Your task to perform on an android device: What's on my calendar tomorrow? Image 0: 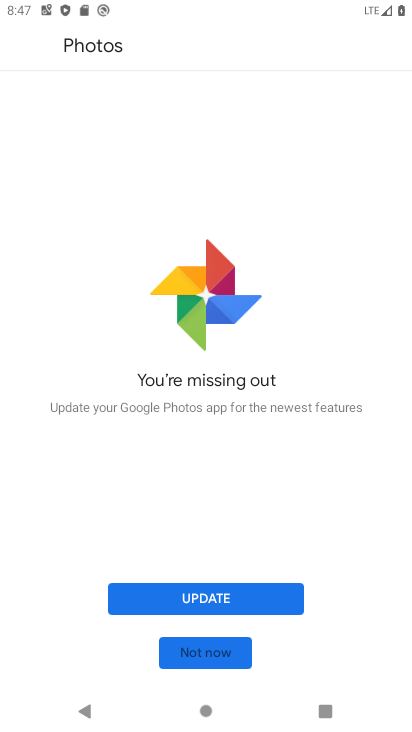
Step 0: press home button
Your task to perform on an android device: What's on my calendar tomorrow? Image 1: 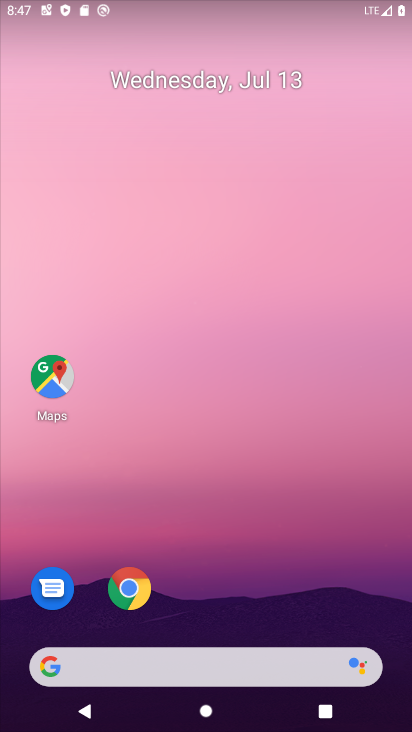
Step 1: drag from (221, 648) to (231, 306)
Your task to perform on an android device: What's on my calendar tomorrow? Image 2: 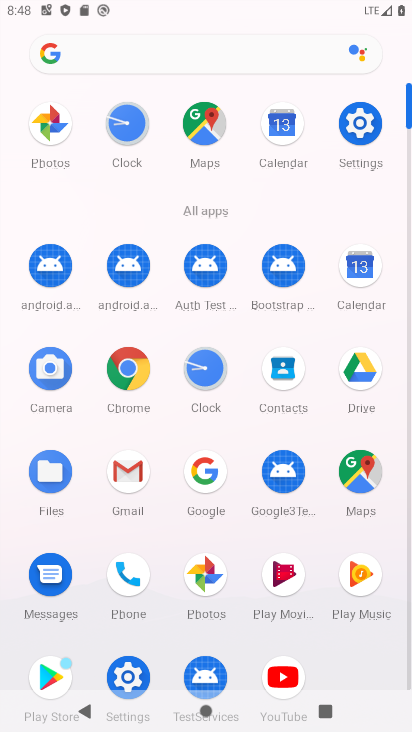
Step 2: click (367, 257)
Your task to perform on an android device: What's on my calendar tomorrow? Image 3: 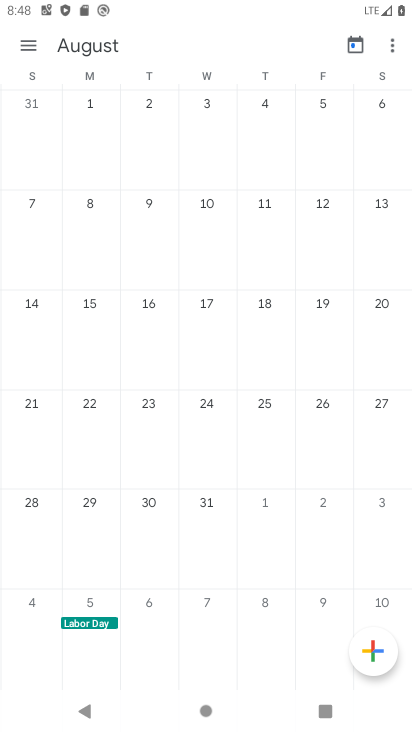
Step 3: drag from (28, 177) to (400, 228)
Your task to perform on an android device: What's on my calendar tomorrow? Image 4: 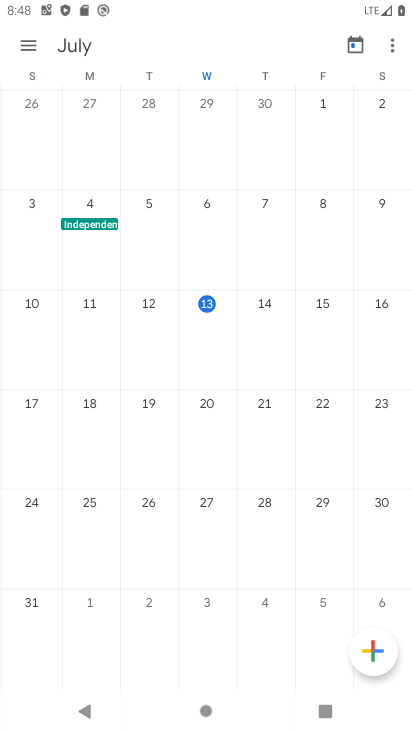
Step 4: click (331, 316)
Your task to perform on an android device: What's on my calendar tomorrow? Image 5: 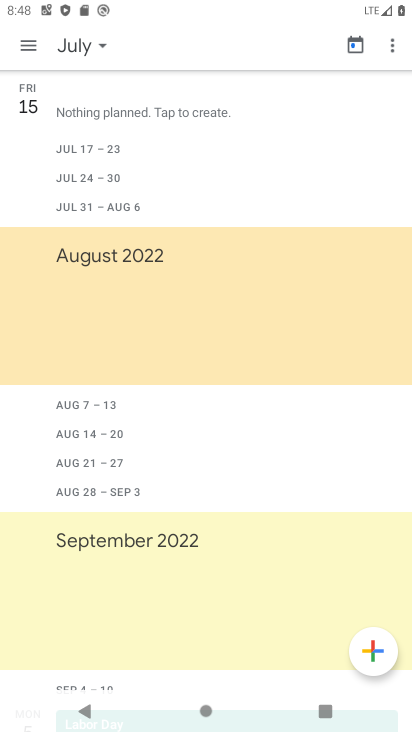
Step 5: task complete